Your task to perform on an android device: remove spam from my inbox in the gmail app Image 0: 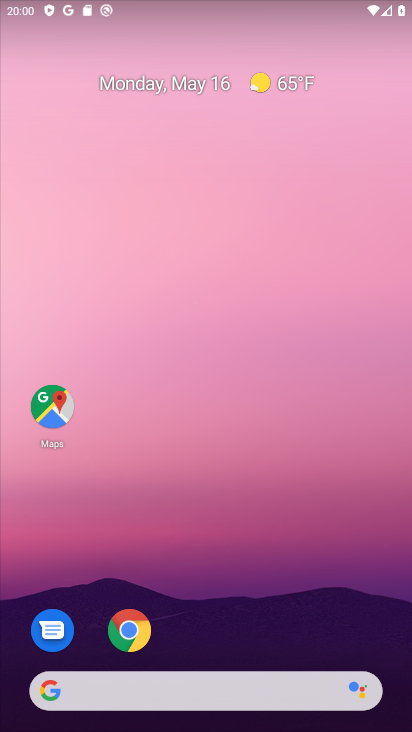
Step 0: drag from (215, 591) to (215, 148)
Your task to perform on an android device: remove spam from my inbox in the gmail app Image 1: 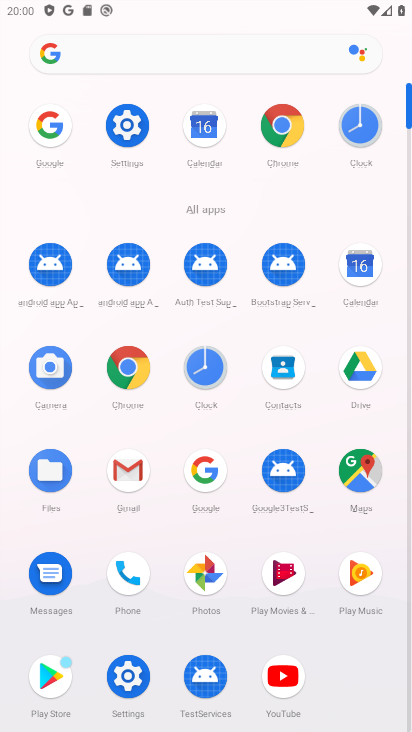
Step 1: click (128, 475)
Your task to perform on an android device: remove spam from my inbox in the gmail app Image 2: 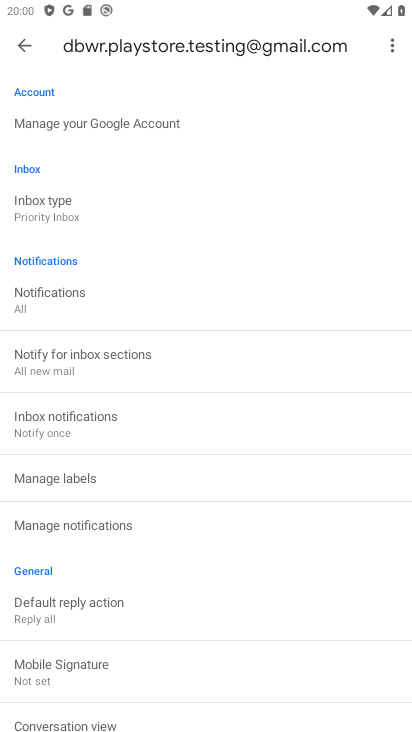
Step 2: click (25, 46)
Your task to perform on an android device: remove spam from my inbox in the gmail app Image 3: 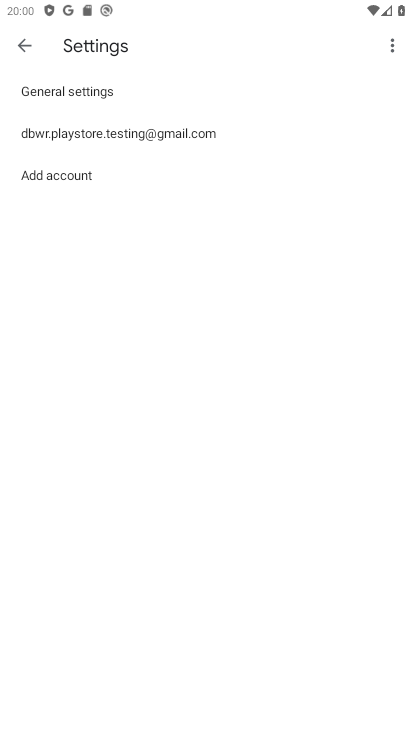
Step 3: click (25, 46)
Your task to perform on an android device: remove spam from my inbox in the gmail app Image 4: 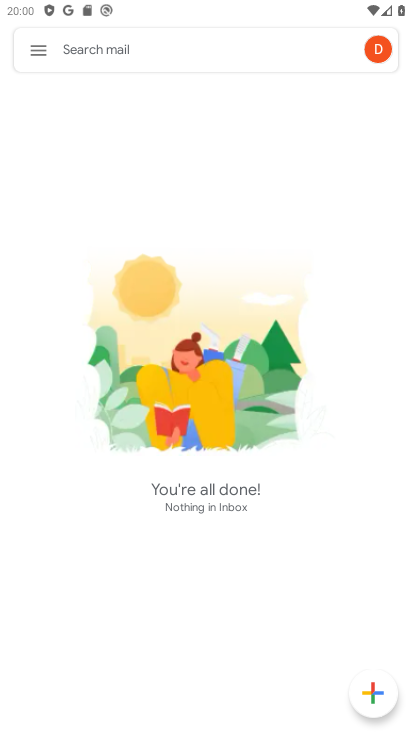
Step 4: click (25, 46)
Your task to perform on an android device: remove spam from my inbox in the gmail app Image 5: 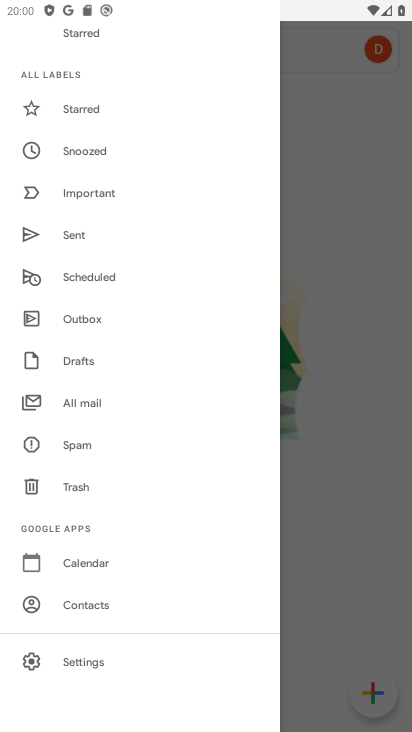
Step 5: click (73, 441)
Your task to perform on an android device: remove spam from my inbox in the gmail app Image 6: 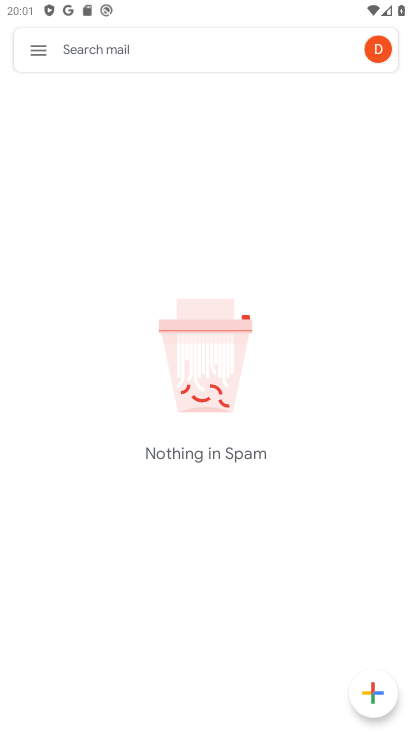
Step 6: task complete